Your task to perform on an android device: Check the news Image 0: 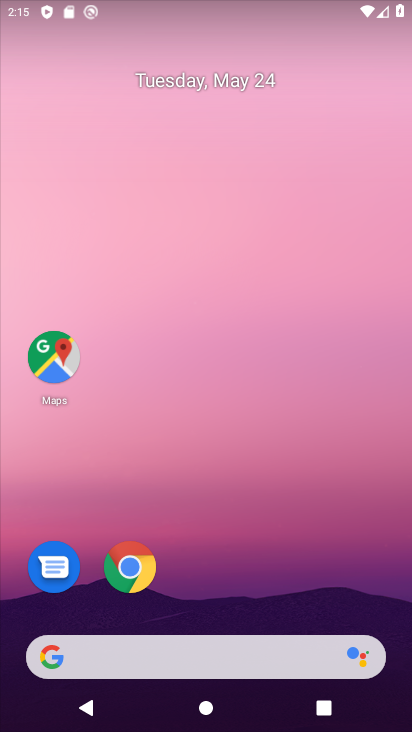
Step 0: click (110, 657)
Your task to perform on an android device: Check the news Image 1: 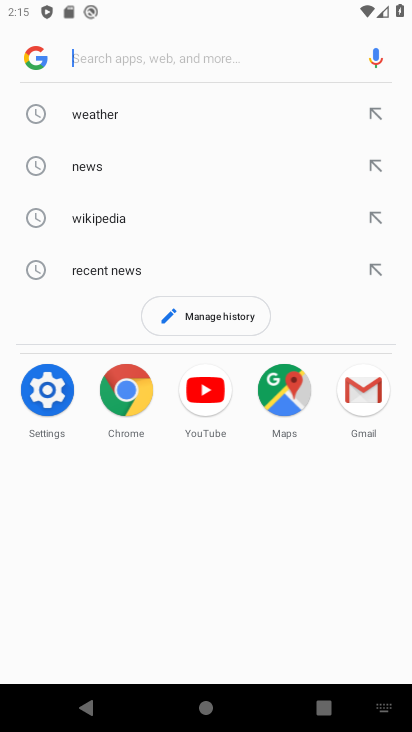
Step 1: click (95, 170)
Your task to perform on an android device: Check the news Image 2: 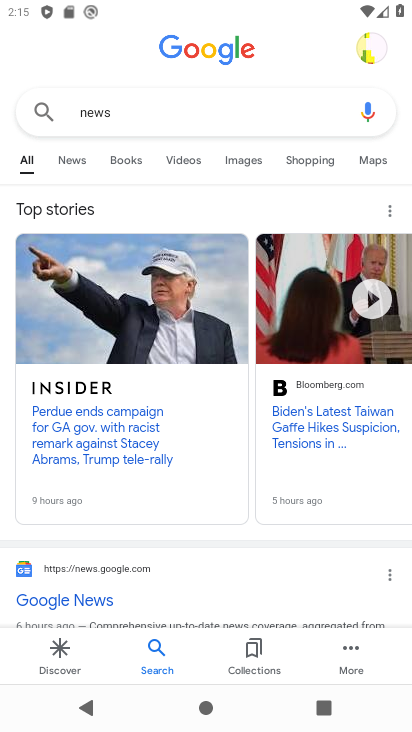
Step 2: task complete